Your task to perform on an android device: Search for a cheap bike on Walmart Image 0: 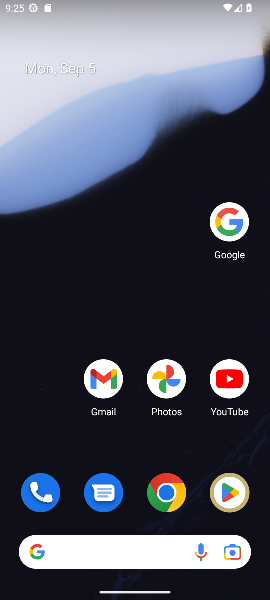
Step 0: click (245, 215)
Your task to perform on an android device: Search for a cheap bike on Walmart Image 1: 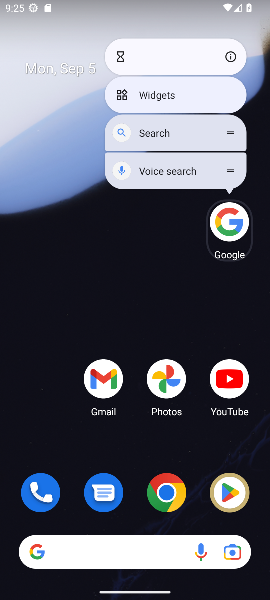
Step 1: click (231, 215)
Your task to perform on an android device: Search for a cheap bike on Walmart Image 2: 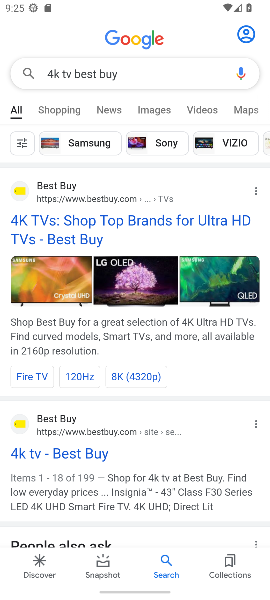
Step 2: click (231, 215)
Your task to perform on an android device: Search for a cheap bike on Walmart Image 3: 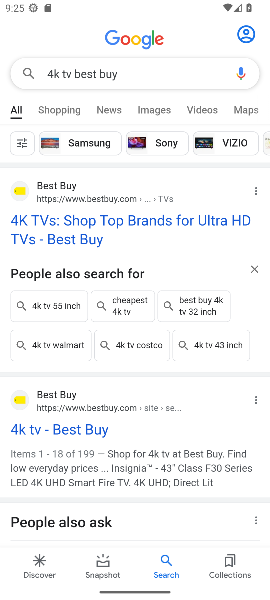
Step 3: click (169, 68)
Your task to perform on an android device: Search for a cheap bike on Walmart Image 4: 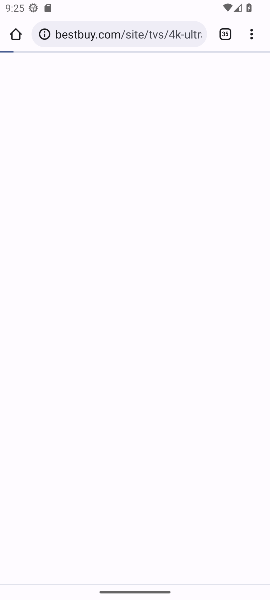
Step 4: click (244, 35)
Your task to perform on an android device: Search for a cheap bike on Walmart Image 5: 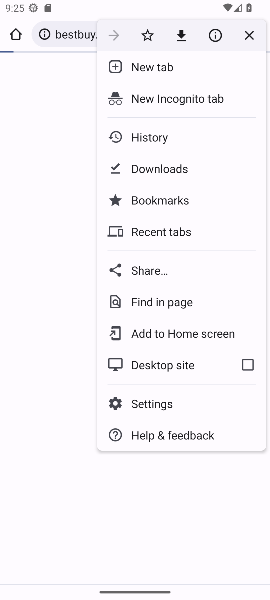
Step 5: click (149, 66)
Your task to perform on an android device: Search for a cheap bike on Walmart Image 6: 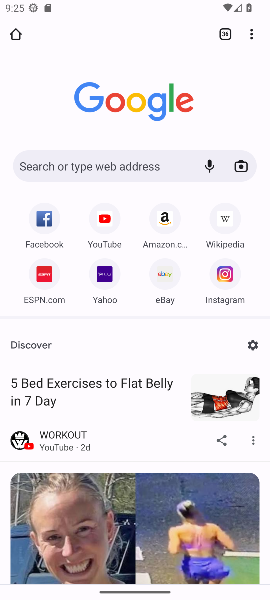
Step 6: click (122, 161)
Your task to perform on an android device: Search for a cheap bike on Walmart Image 7: 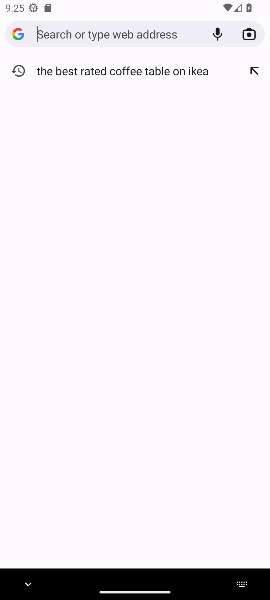
Step 7: type " a cheap bike on Walmart "
Your task to perform on an android device: Search for a cheap bike on Walmart Image 8: 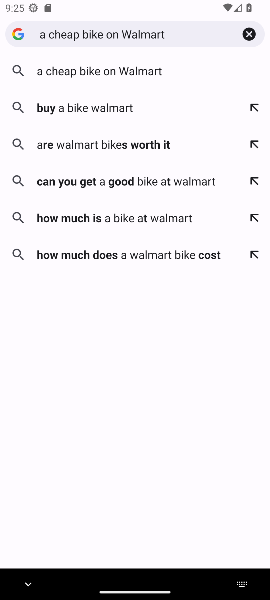
Step 8: click (123, 66)
Your task to perform on an android device: Search for a cheap bike on Walmart Image 9: 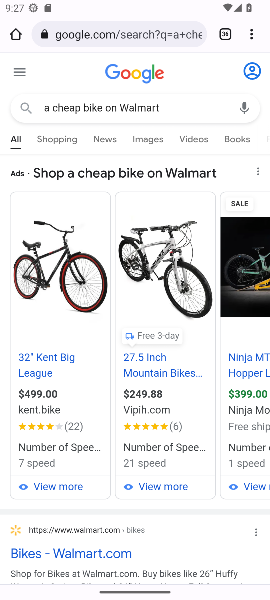
Step 9: task complete